Your task to perform on an android device: Go to location settings Image 0: 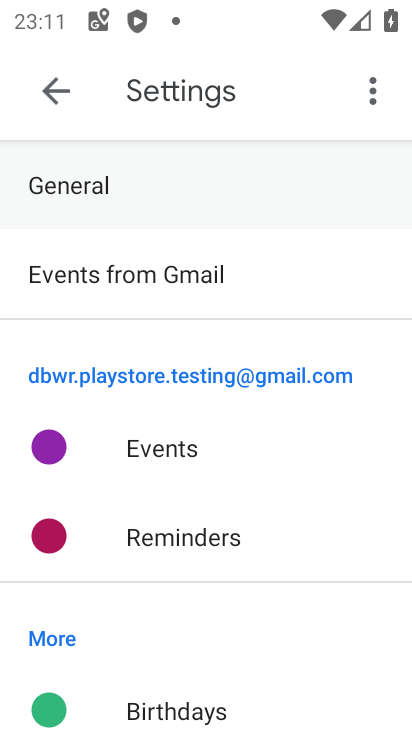
Step 0: press home button
Your task to perform on an android device: Go to location settings Image 1: 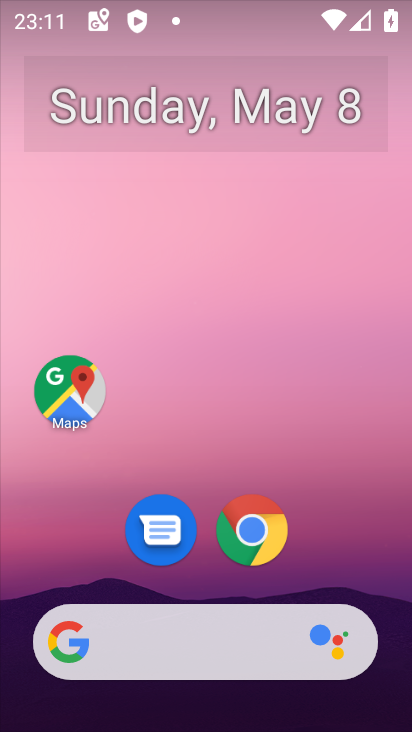
Step 1: drag from (364, 569) to (358, 101)
Your task to perform on an android device: Go to location settings Image 2: 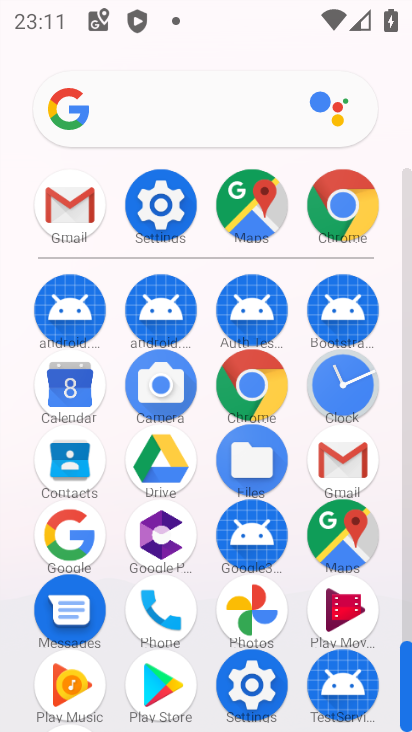
Step 2: click (257, 687)
Your task to perform on an android device: Go to location settings Image 3: 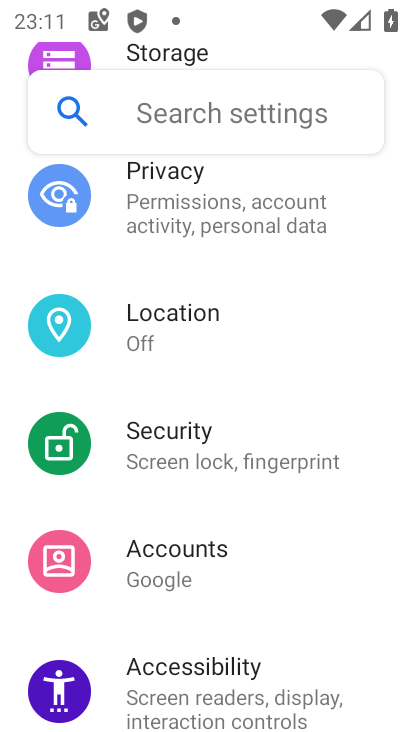
Step 3: click (199, 310)
Your task to perform on an android device: Go to location settings Image 4: 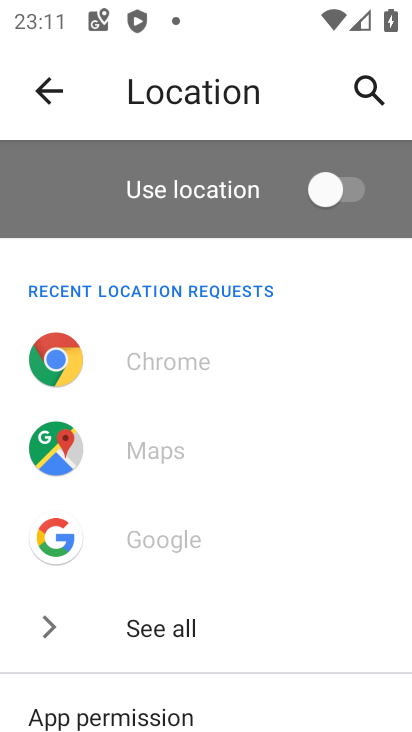
Step 4: task complete